Your task to perform on an android device: empty trash in google photos Image 0: 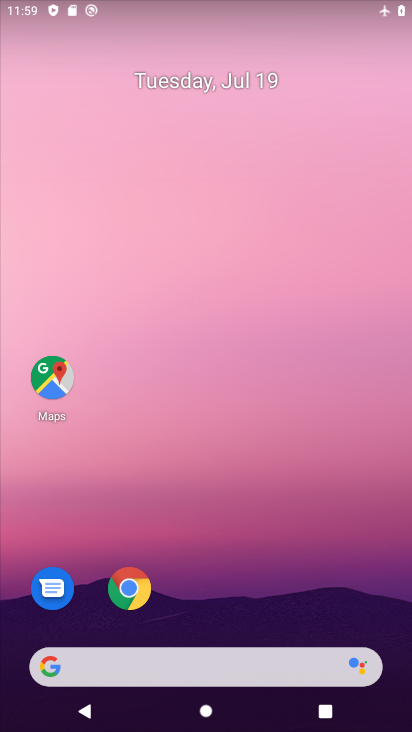
Step 0: drag from (232, 640) to (283, 315)
Your task to perform on an android device: empty trash in google photos Image 1: 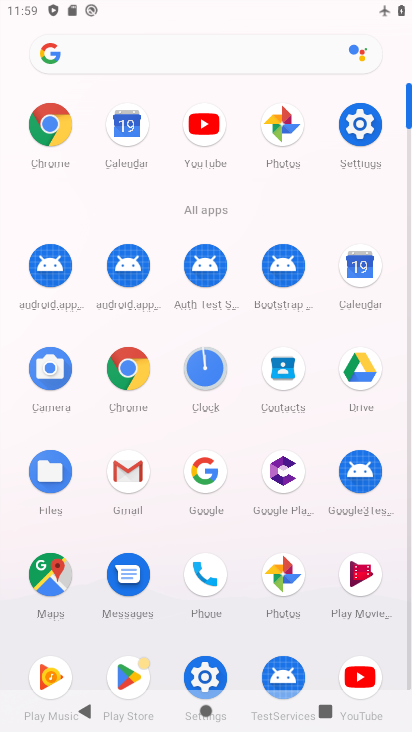
Step 1: click (280, 583)
Your task to perform on an android device: empty trash in google photos Image 2: 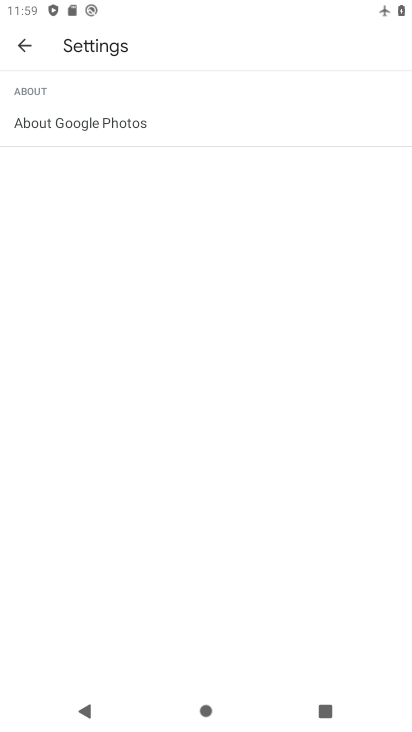
Step 2: click (28, 43)
Your task to perform on an android device: empty trash in google photos Image 3: 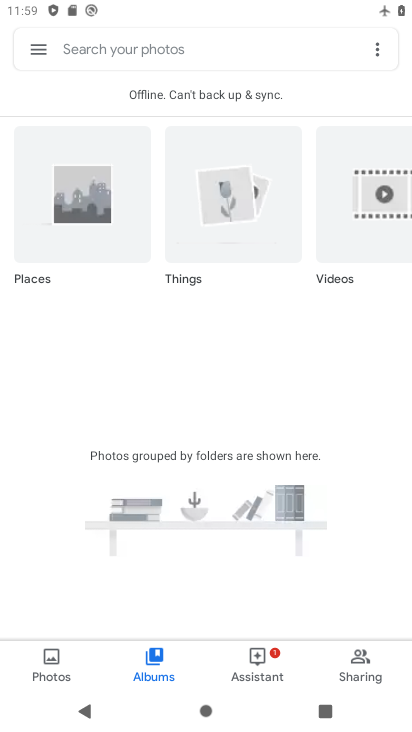
Step 3: click (32, 47)
Your task to perform on an android device: empty trash in google photos Image 4: 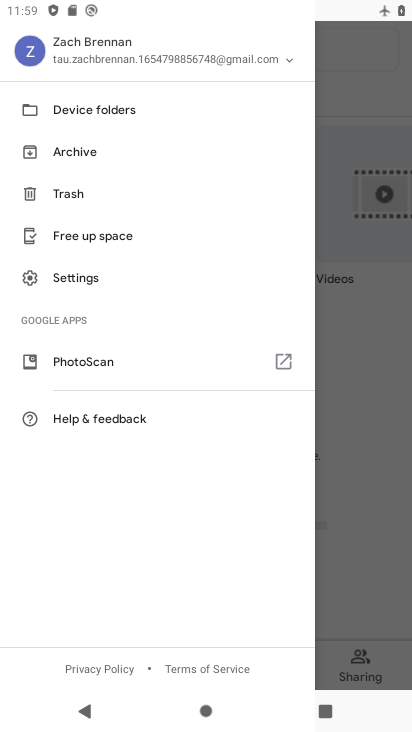
Step 4: click (65, 192)
Your task to perform on an android device: empty trash in google photos Image 5: 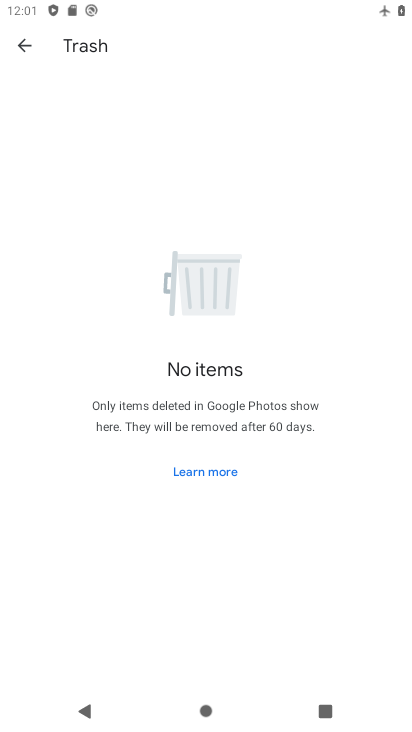
Step 5: task complete